Your task to perform on an android device: turn off location history Image 0: 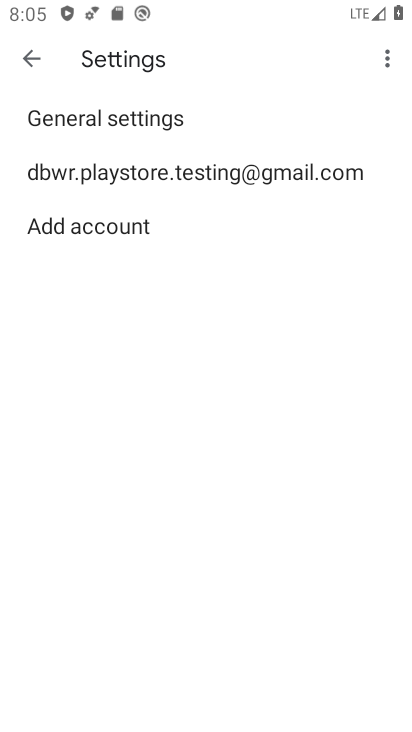
Step 0: press home button
Your task to perform on an android device: turn off location history Image 1: 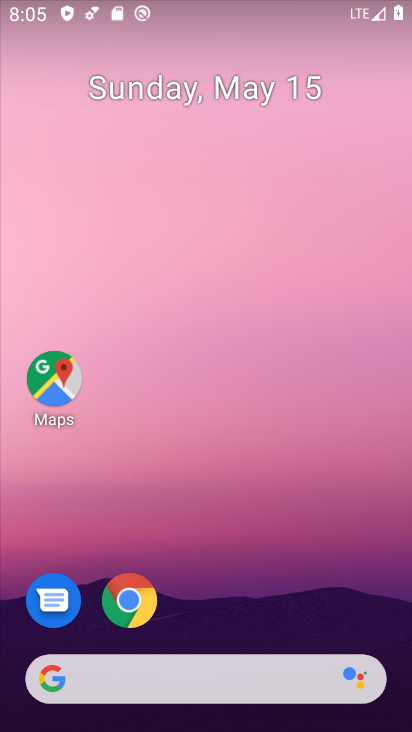
Step 1: drag from (204, 581) to (64, 55)
Your task to perform on an android device: turn off location history Image 2: 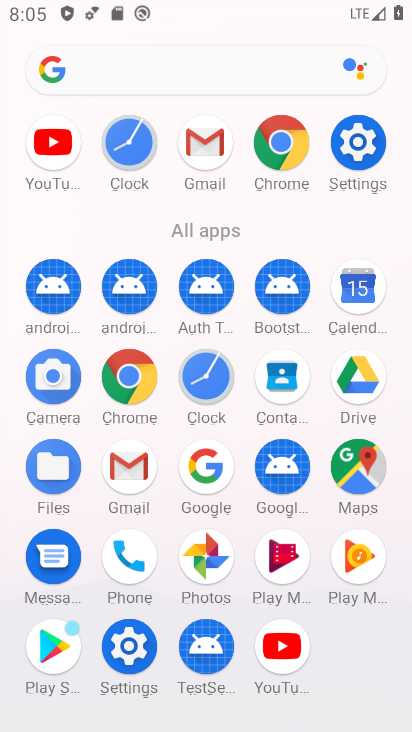
Step 2: click (355, 158)
Your task to perform on an android device: turn off location history Image 3: 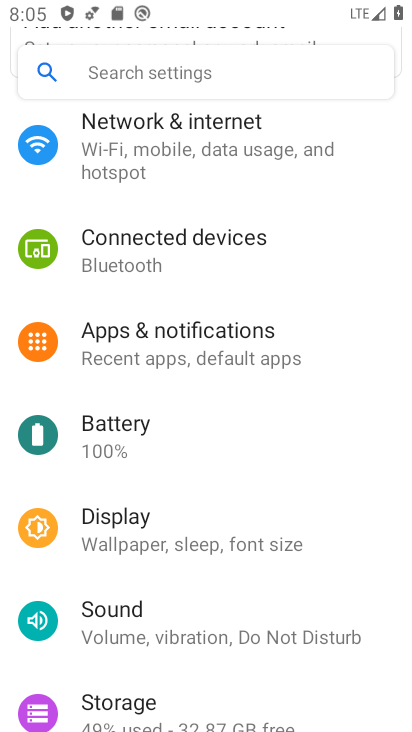
Step 3: drag from (153, 676) to (126, 202)
Your task to perform on an android device: turn off location history Image 4: 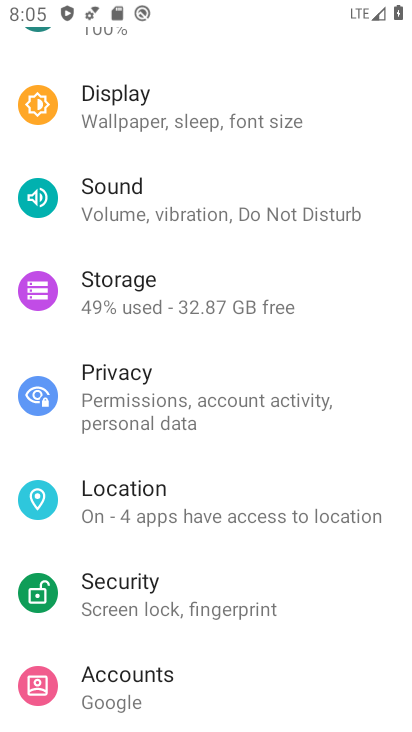
Step 4: click (288, 516)
Your task to perform on an android device: turn off location history Image 5: 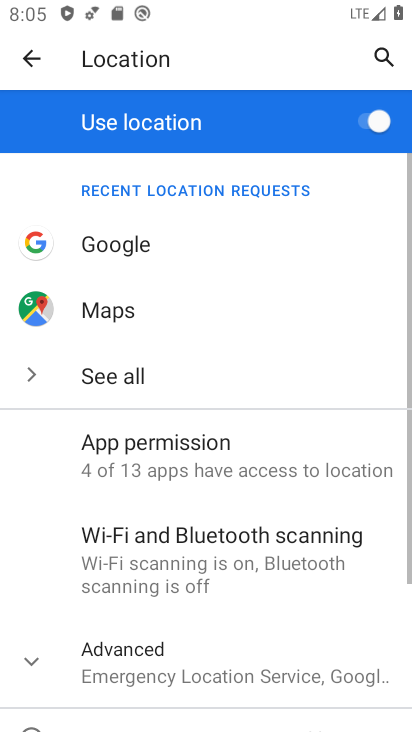
Step 5: click (143, 666)
Your task to perform on an android device: turn off location history Image 6: 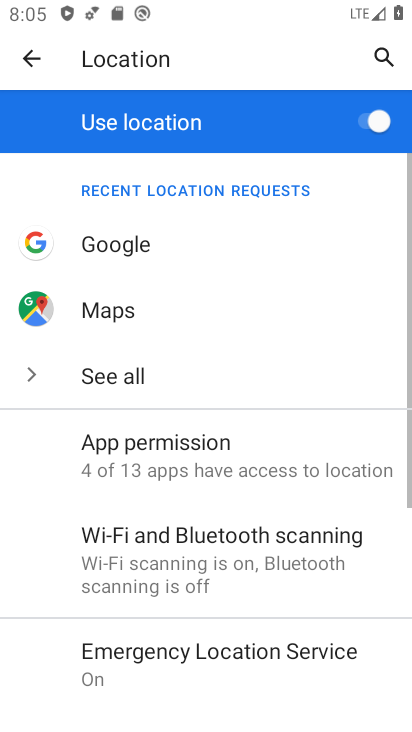
Step 6: drag from (143, 666) to (145, 306)
Your task to perform on an android device: turn off location history Image 7: 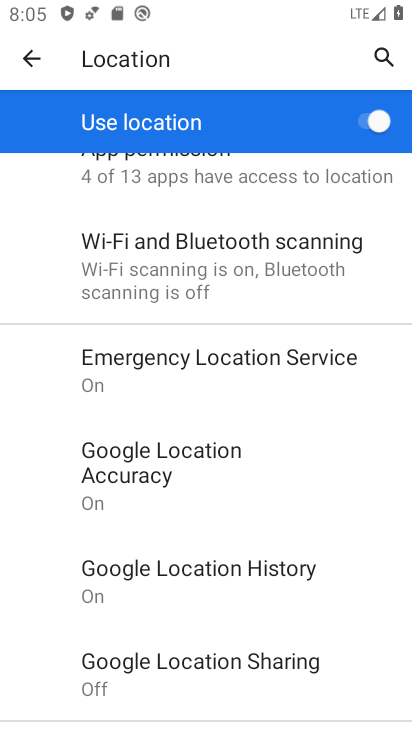
Step 7: click (132, 591)
Your task to perform on an android device: turn off location history Image 8: 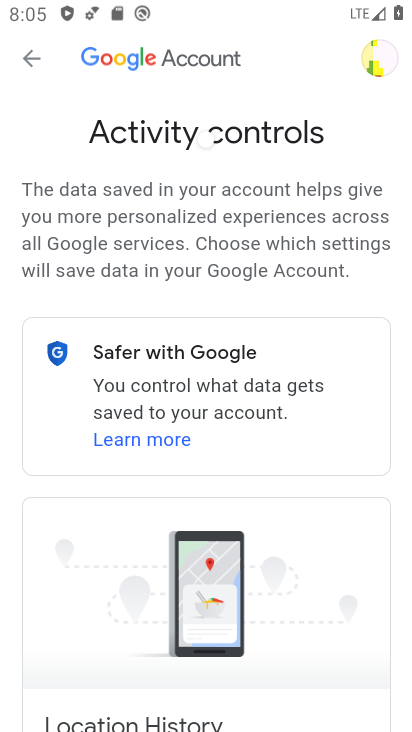
Step 8: drag from (271, 672) to (202, 207)
Your task to perform on an android device: turn off location history Image 9: 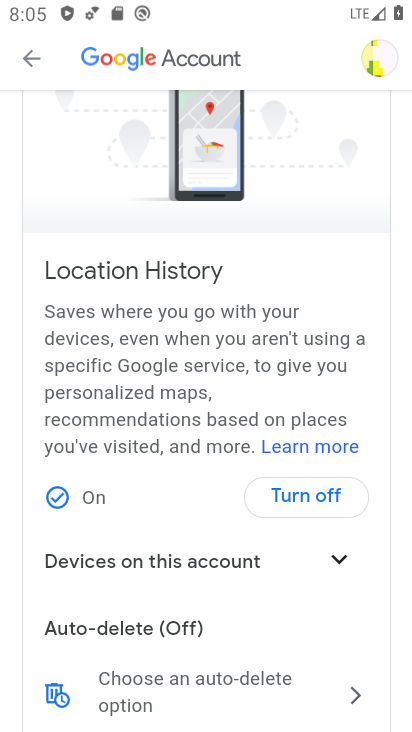
Step 9: click (310, 500)
Your task to perform on an android device: turn off location history Image 10: 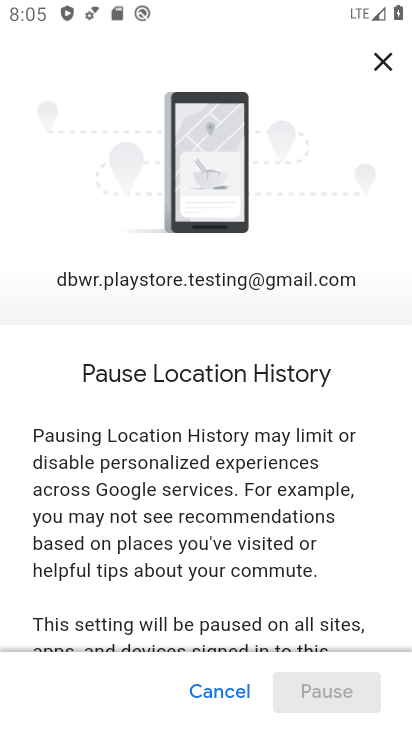
Step 10: drag from (251, 597) to (192, 82)
Your task to perform on an android device: turn off location history Image 11: 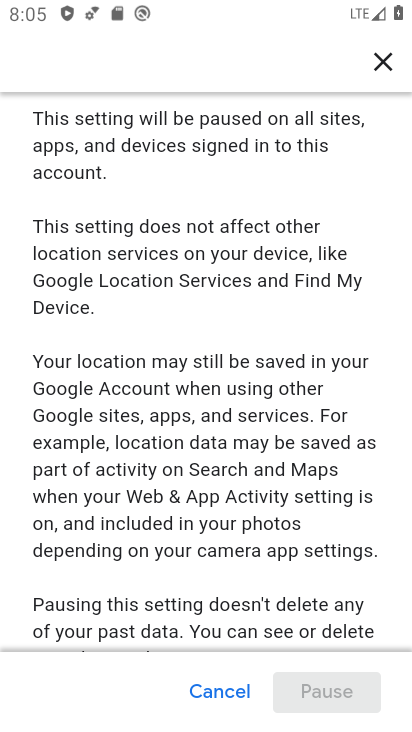
Step 11: drag from (214, 548) to (187, 211)
Your task to perform on an android device: turn off location history Image 12: 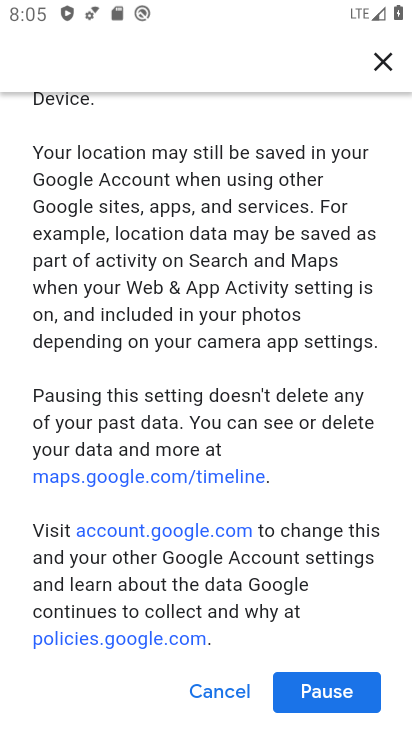
Step 12: click (309, 696)
Your task to perform on an android device: turn off location history Image 13: 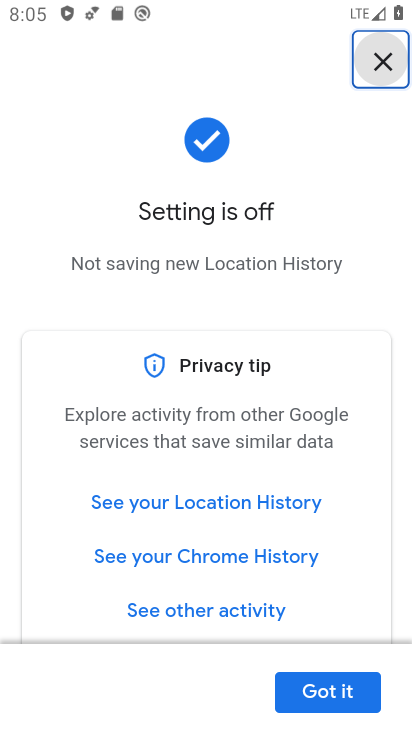
Step 13: click (309, 697)
Your task to perform on an android device: turn off location history Image 14: 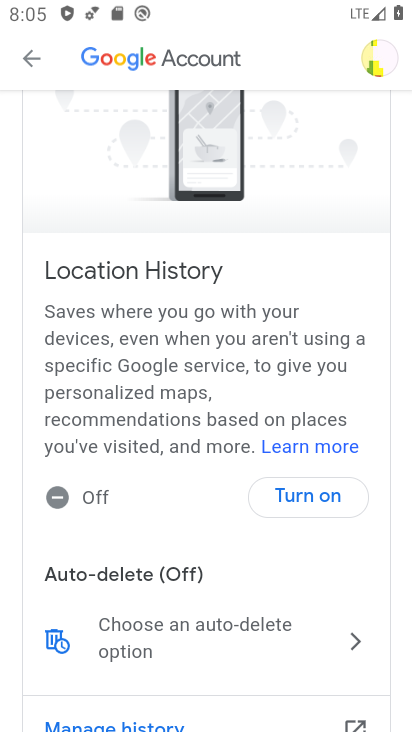
Step 14: task complete